Your task to perform on an android device: turn vacation reply on in the gmail app Image 0: 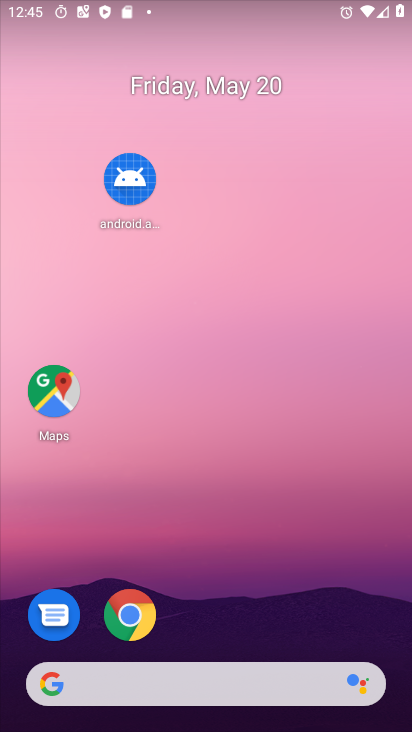
Step 0: drag from (274, 561) to (247, 49)
Your task to perform on an android device: turn vacation reply on in the gmail app Image 1: 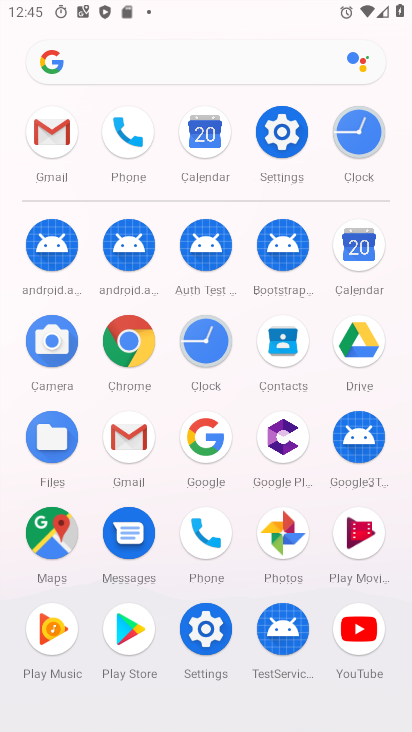
Step 1: click (130, 436)
Your task to perform on an android device: turn vacation reply on in the gmail app Image 2: 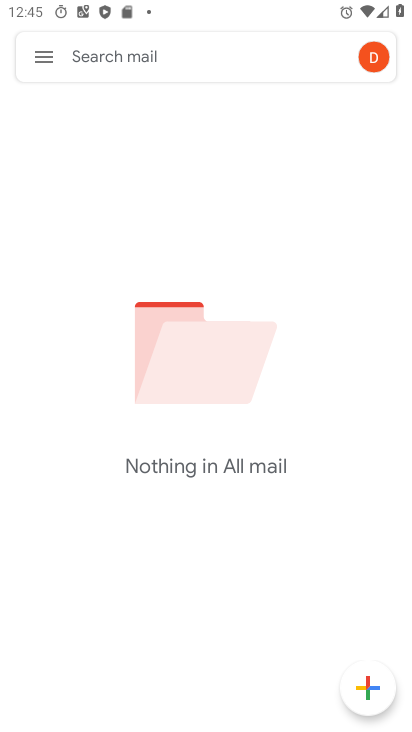
Step 2: click (38, 49)
Your task to perform on an android device: turn vacation reply on in the gmail app Image 3: 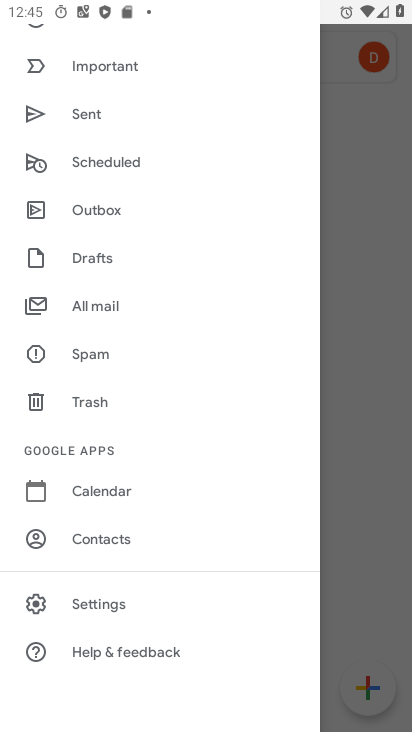
Step 3: drag from (173, 489) to (168, 208)
Your task to perform on an android device: turn vacation reply on in the gmail app Image 4: 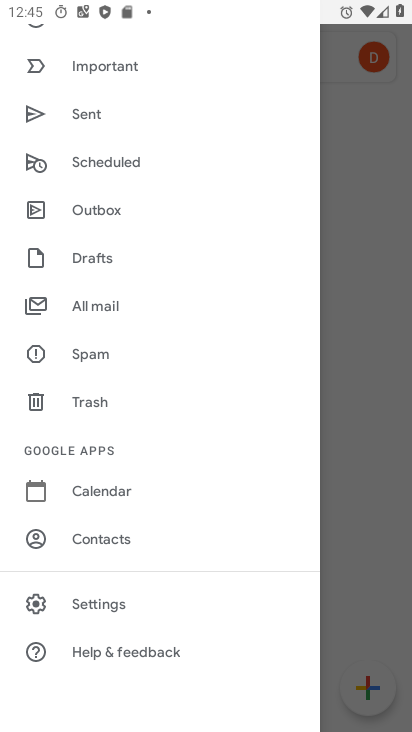
Step 4: click (63, 602)
Your task to perform on an android device: turn vacation reply on in the gmail app Image 5: 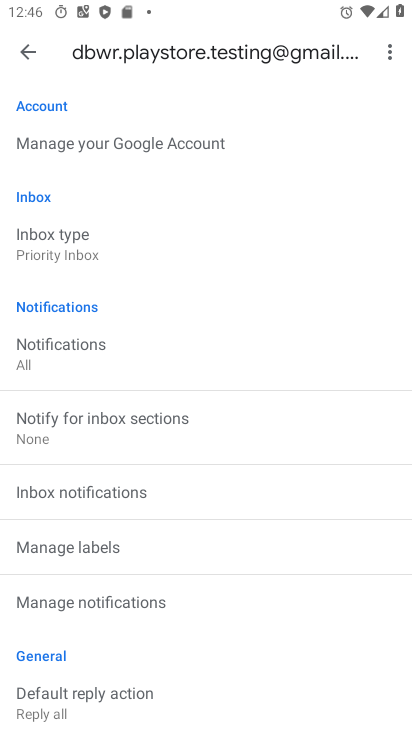
Step 5: drag from (182, 611) to (121, 0)
Your task to perform on an android device: turn vacation reply on in the gmail app Image 6: 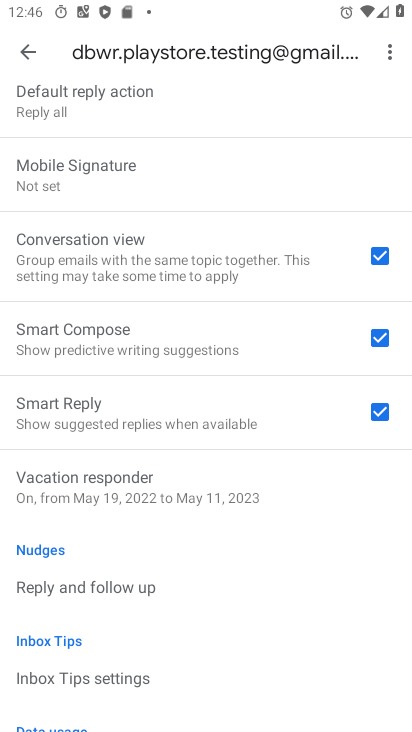
Step 6: click (231, 486)
Your task to perform on an android device: turn vacation reply on in the gmail app Image 7: 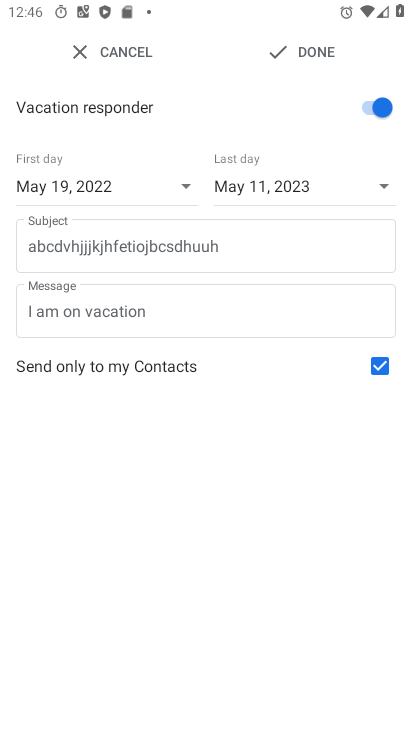
Step 7: click (291, 41)
Your task to perform on an android device: turn vacation reply on in the gmail app Image 8: 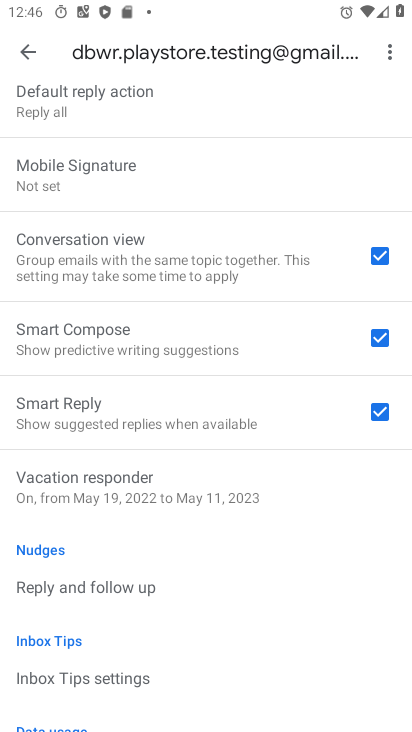
Step 8: task complete